Your task to perform on an android device: Open Youtube and go to the subscriptions tab Image 0: 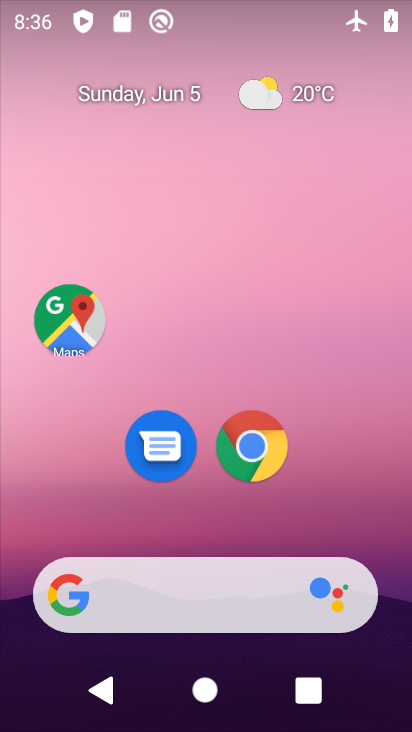
Step 0: drag from (197, 536) to (243, 166)
Your task to perform on an android device: Open Youtube and go to the subscriptions tab Image 1: 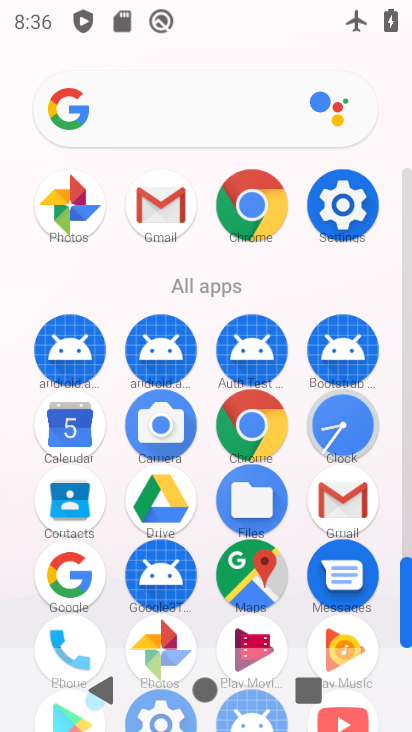
Step 1: drag from (204, 546) to (212, 247)
Your task to perform on an android device: Open Youtube and go to the subscriptions tab Image 2: 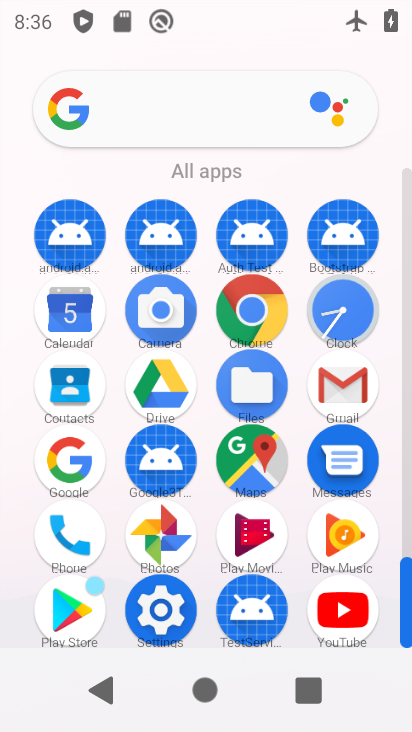
Step 2: click (324, 591)
Your task to perform on an android device: Open Youtube and go to the subscriptions tab Image 3: 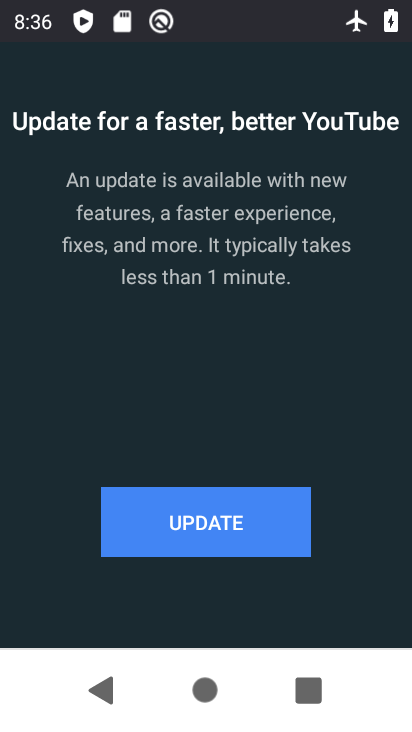
Step 3: click (244, 531)
Your task to perform on an android device: Open Youtube and go to the subscriptions tab Image 4: 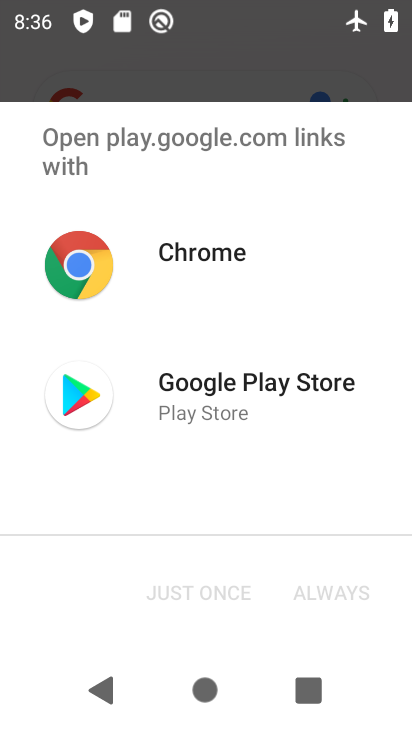
Step 4: click (157, 382)
Your task to perform on an android device: Open Youtube and go to the subscriptions tab Image 5: 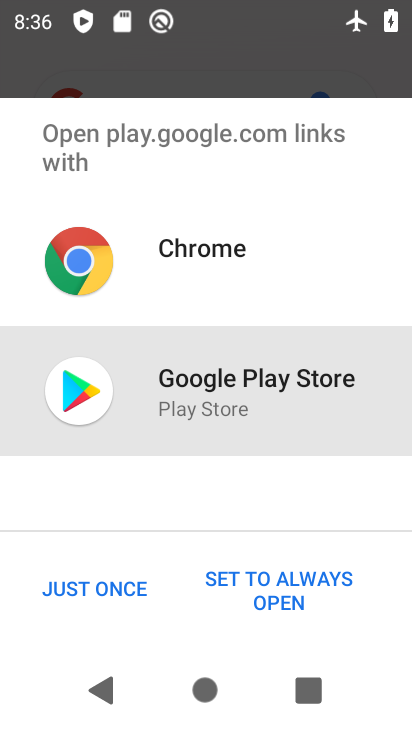
Step 5: click (135, 580)
Your task to perform on an android device: Open Youtube and go to the subscriptions tab Image 6: 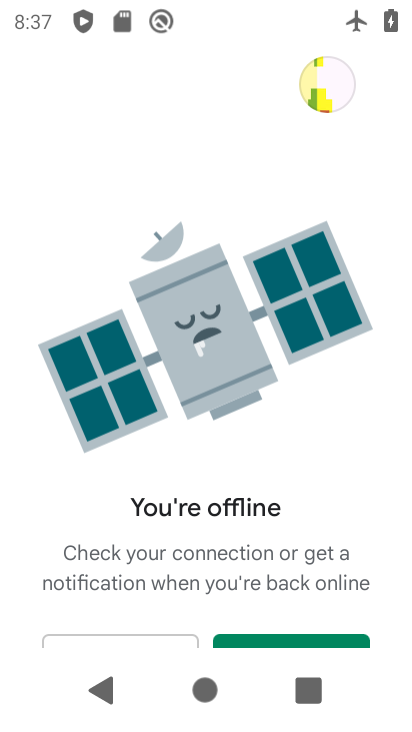
Step 6: press home button
Your task to perform on an android device: Open Youtube and go to the subscriptions tab Image 7: 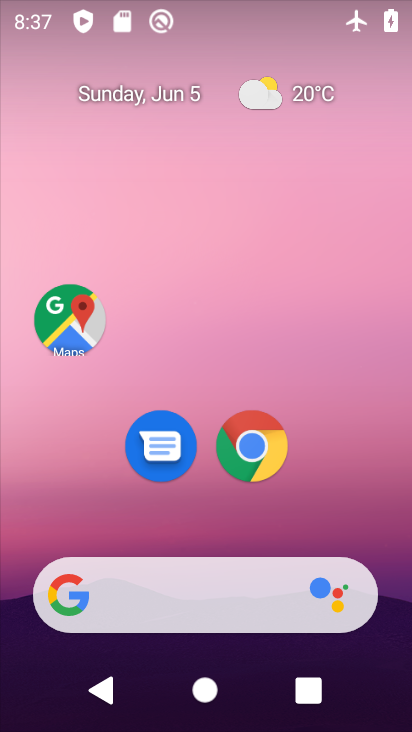
Step 7: drag from (222, 522) to (243, 154)
Your task to perform on an android device: Open Youtube and go to the subscriptions tab Image 8: 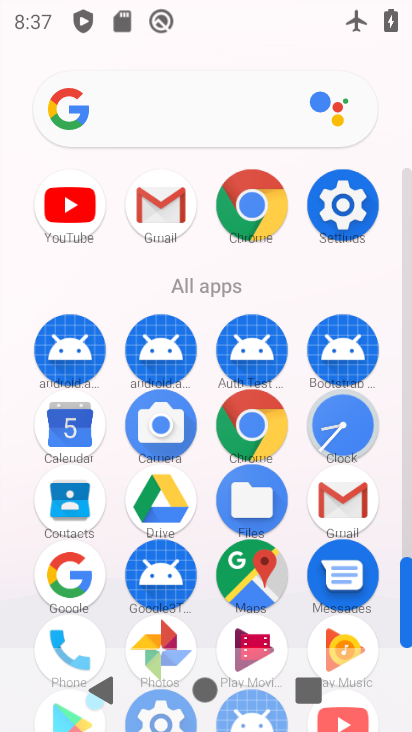
Step 8: click (69, 220)
Your task to perform on an android device: Open Youtube and go to the subscriptions tab Image 9: 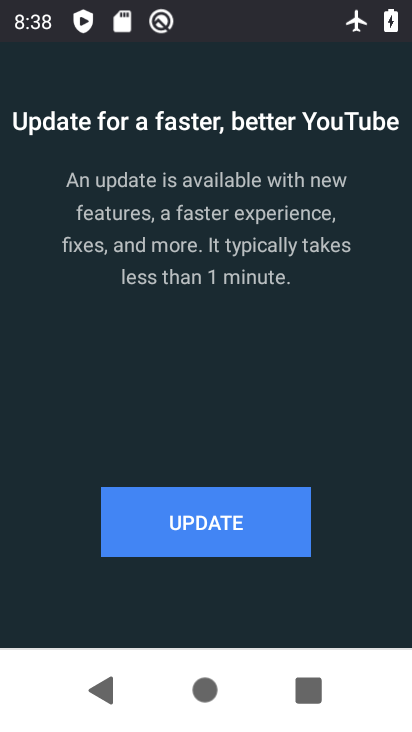
Step 9: click (214, 529)
Your task to perform on an android device: Open Youtube and go to the subscriptions tab Image 10: 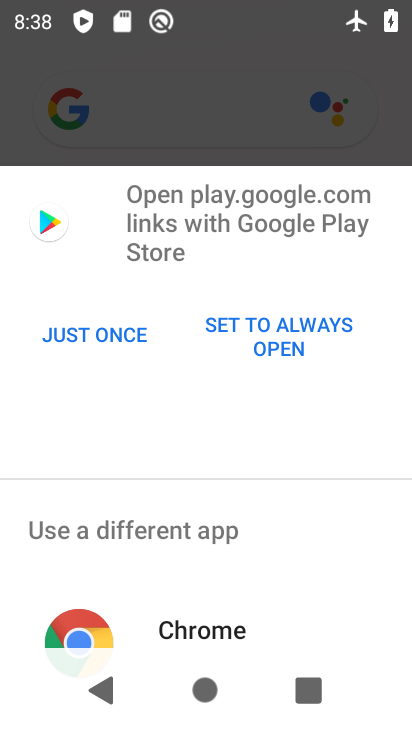
Step 10: click (91, 337)
Your task to perform on an android device: Open Youtube and go to the subscriptions tab Image 11: 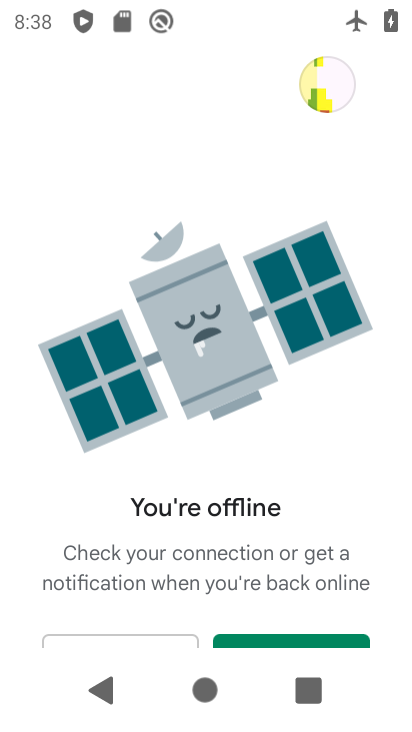
Step 11: task complete